Your task to perform on an android device: uninstall "Facebook" Image 0: 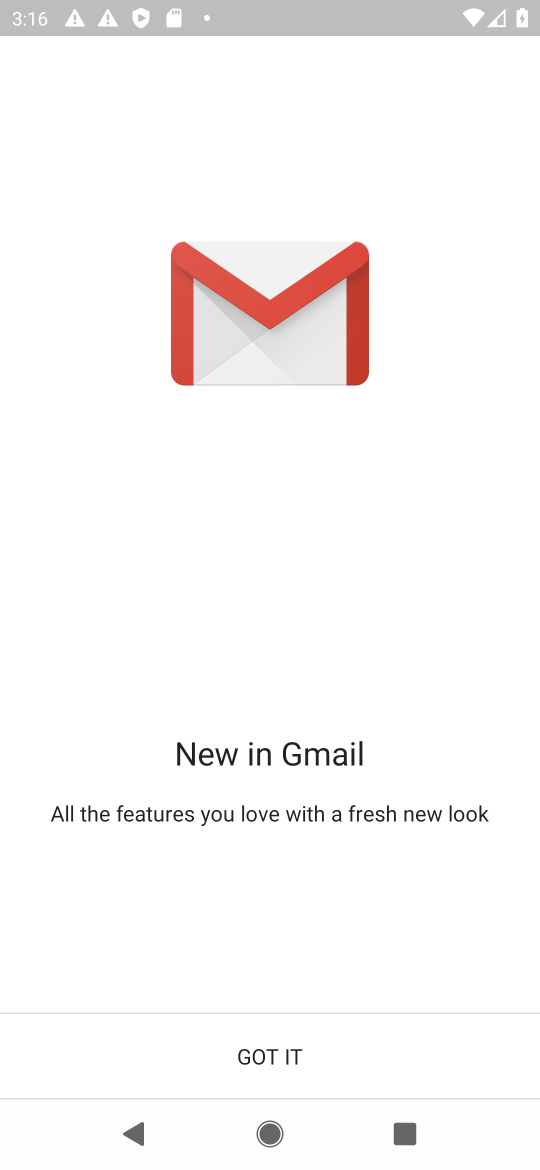
Step 0: press back button
Your task to perform on an android device: uninstall "Facebook" Image 1: 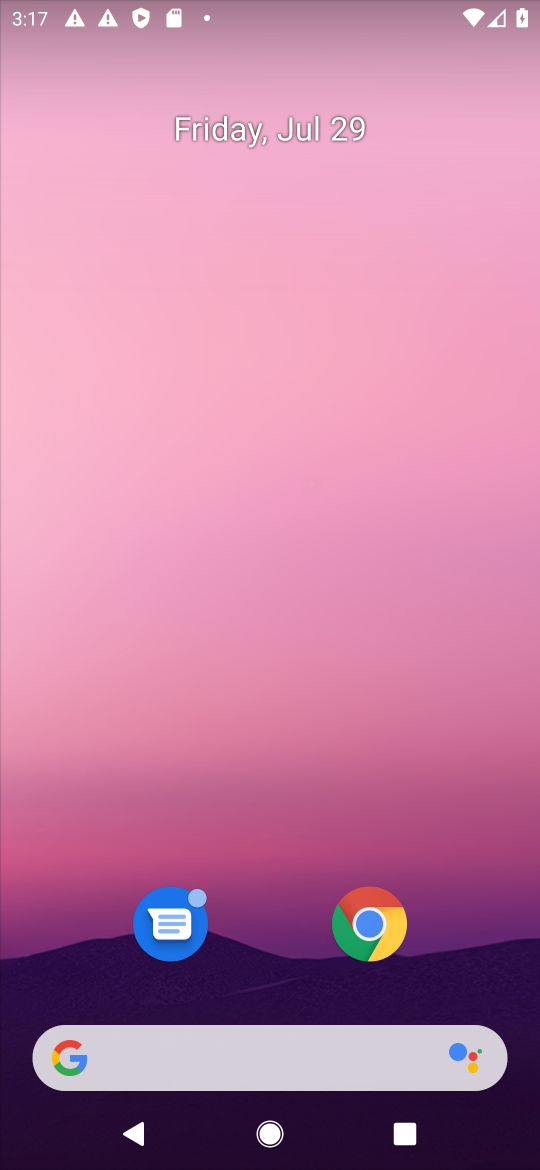
Step 1: click (254, 288)
Your task to perform on an android device: uninstall "Facebook" Image 2: 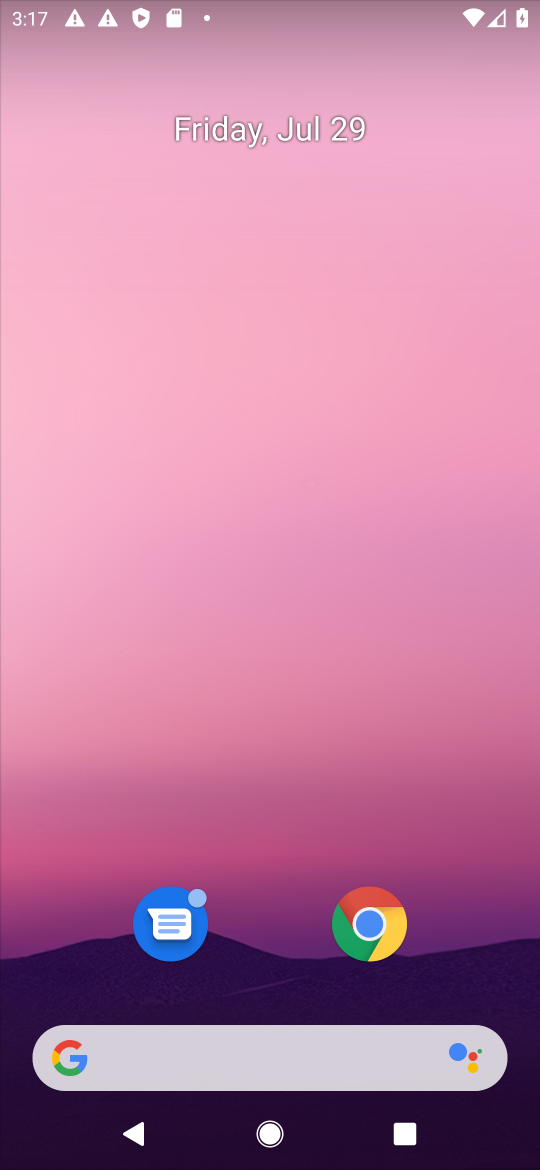
Step 2: click (246, 302)
Your task to perform on an android device: uninstall "Facebook" Image 3: 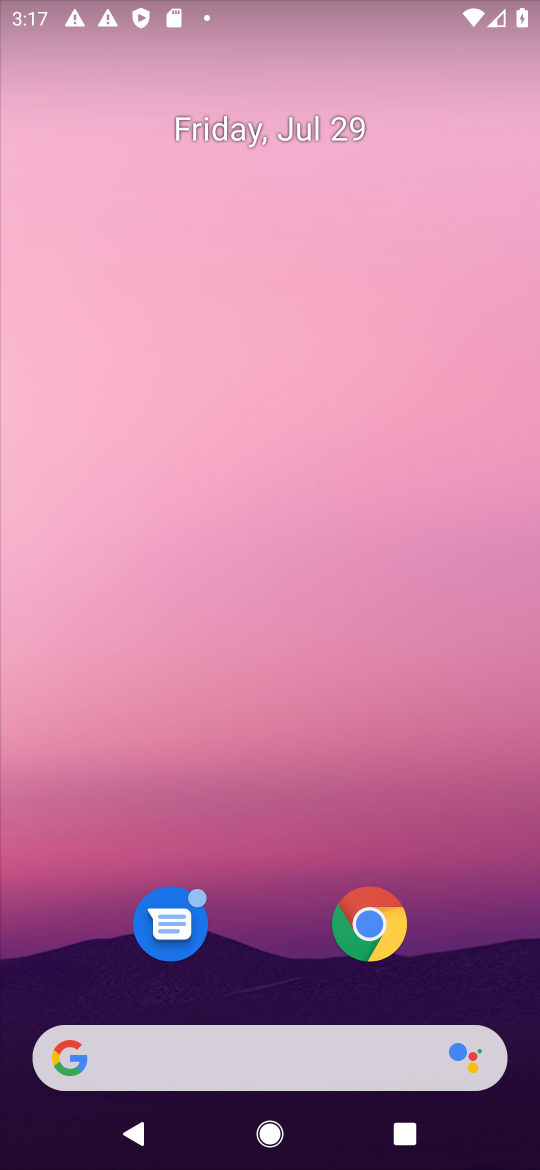
Step 3: drag from (306, 711) to (241, 207)
Your task to perform on an android device: uninstall "Facebook" Image 4: 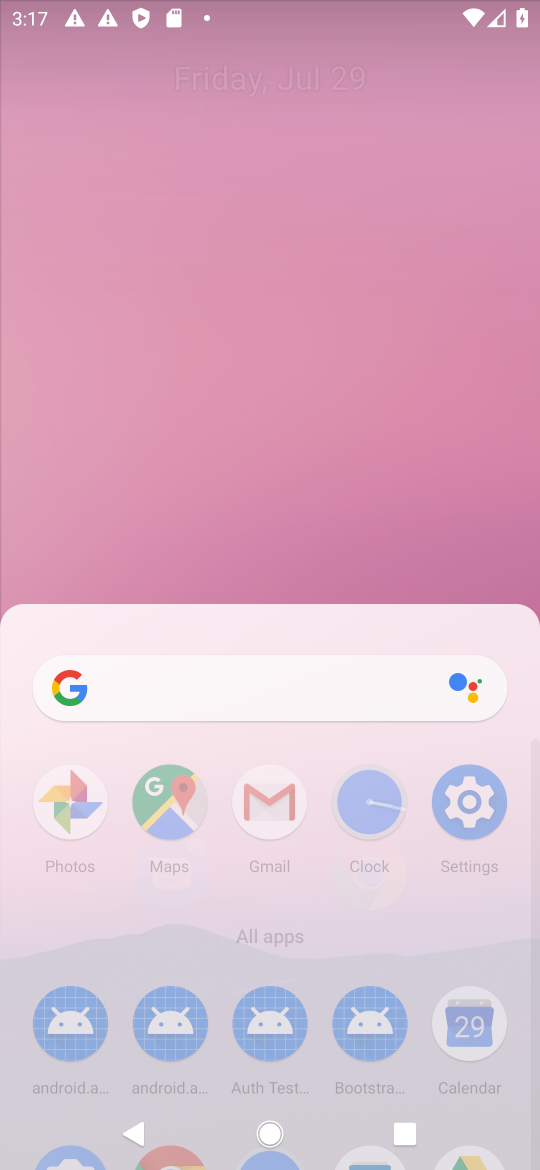
Step 4: drag from (276, 382) to (224, 352)
Your task to perform on an android device: uninstall "Facebook" Image 5: 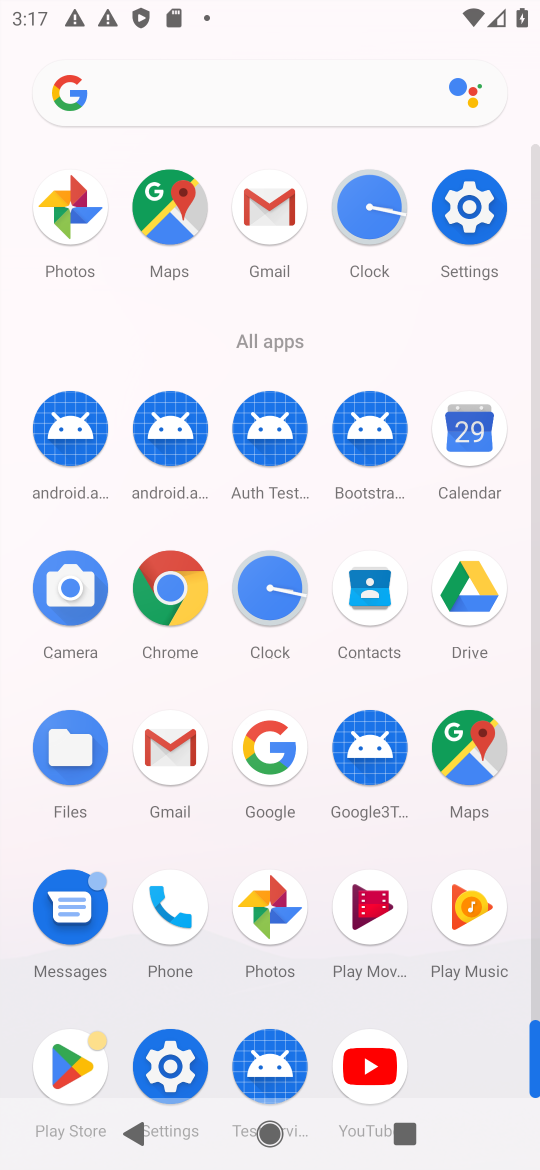
Step 5: click (57, 1069)
Your task to perform on an android device: uninstall "Facebook" Image 6: 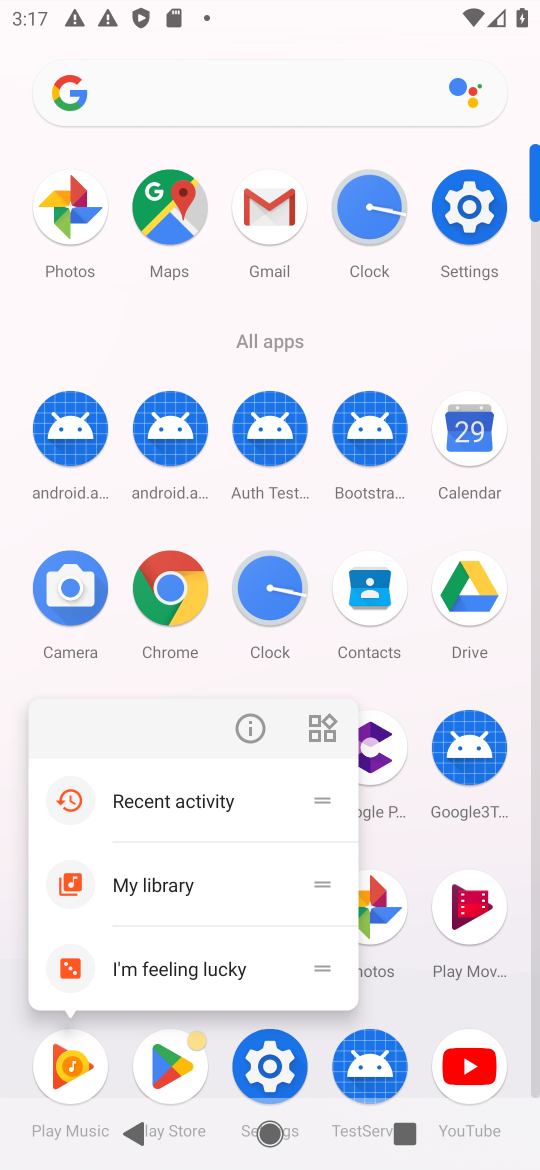
Step 6: click (167, 1068)
Your task to perform on an android device: uninstall "Facebook" Image 7: 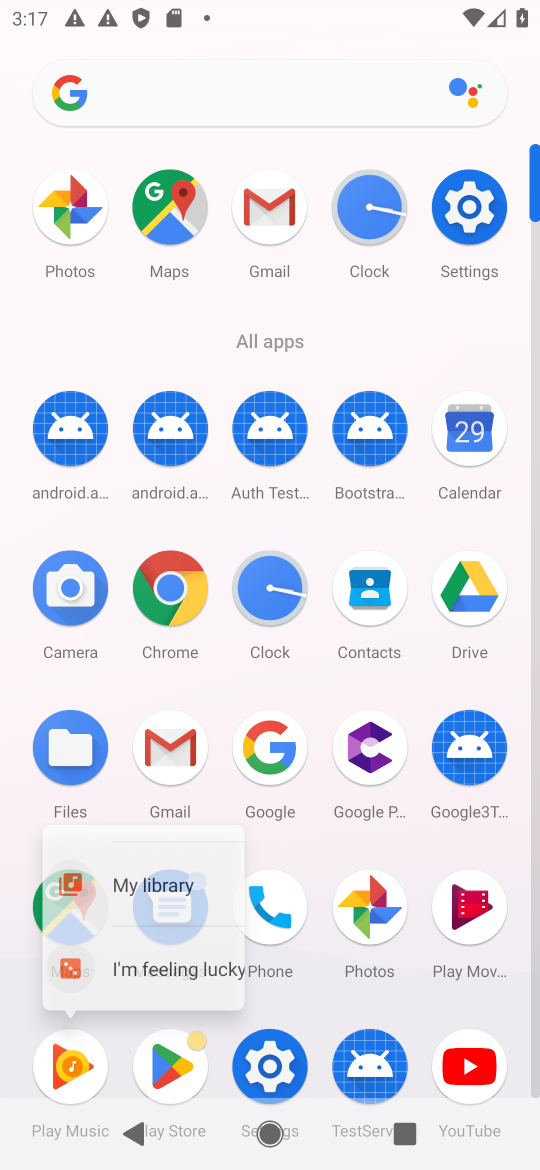
Step 7: click (171, 1068)
Your task to perform on an android device: uninstall "Facebook" Image 8: 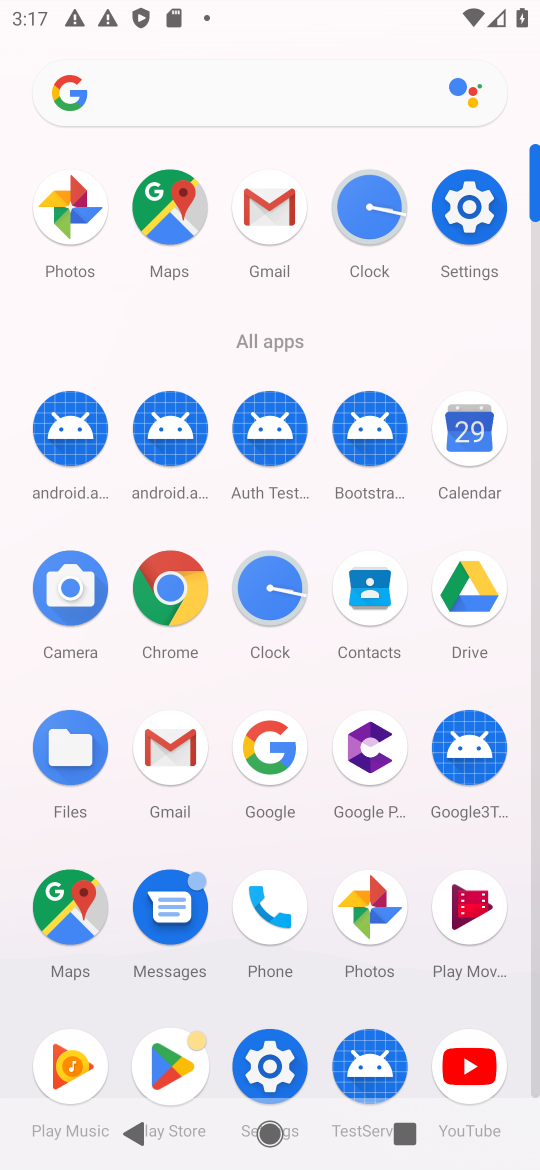
Step 8: click (176, 1068)
Your task to perform on an android device: uninstall "Facebook" Image 9: 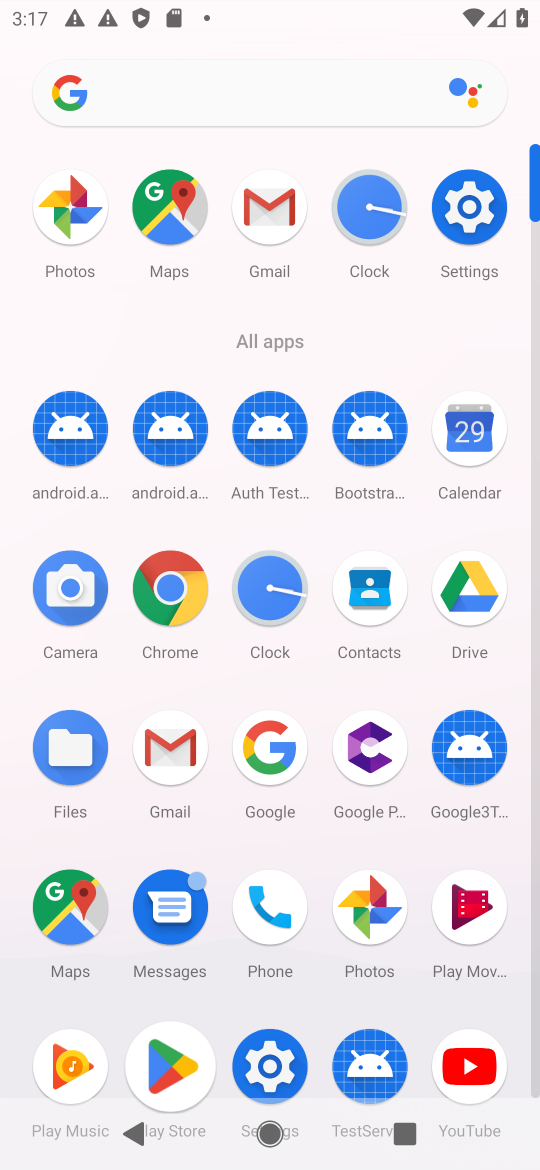
Step 9: click (178, 1071)
Your task to perform on an android device: uninstall "Facebook" Image 10: 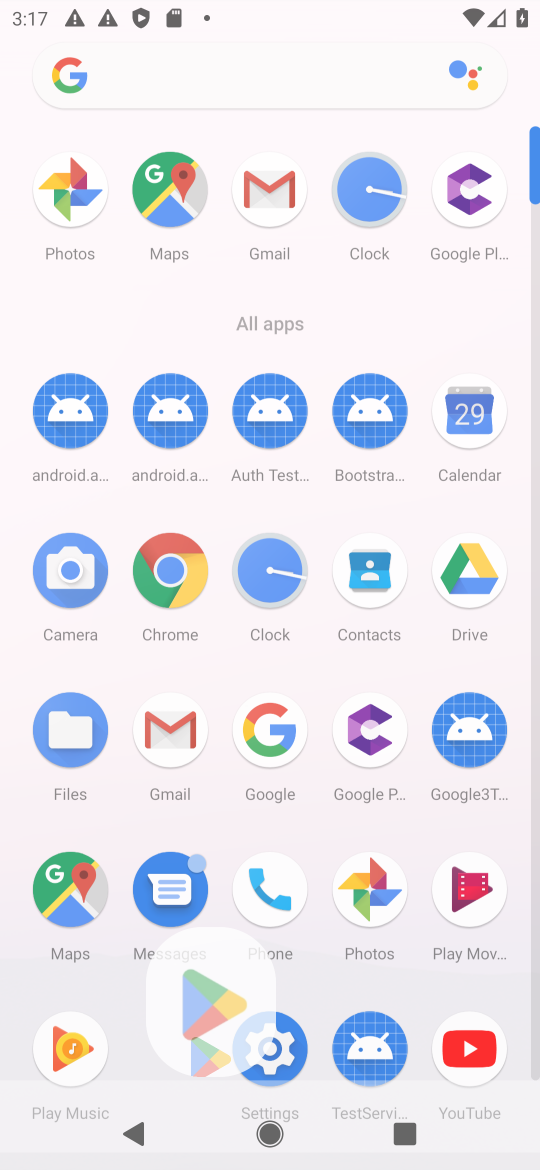
Step 10: click (161, 1041)
Your task to perform on an android device: uninstall "Facebook" Image 11: 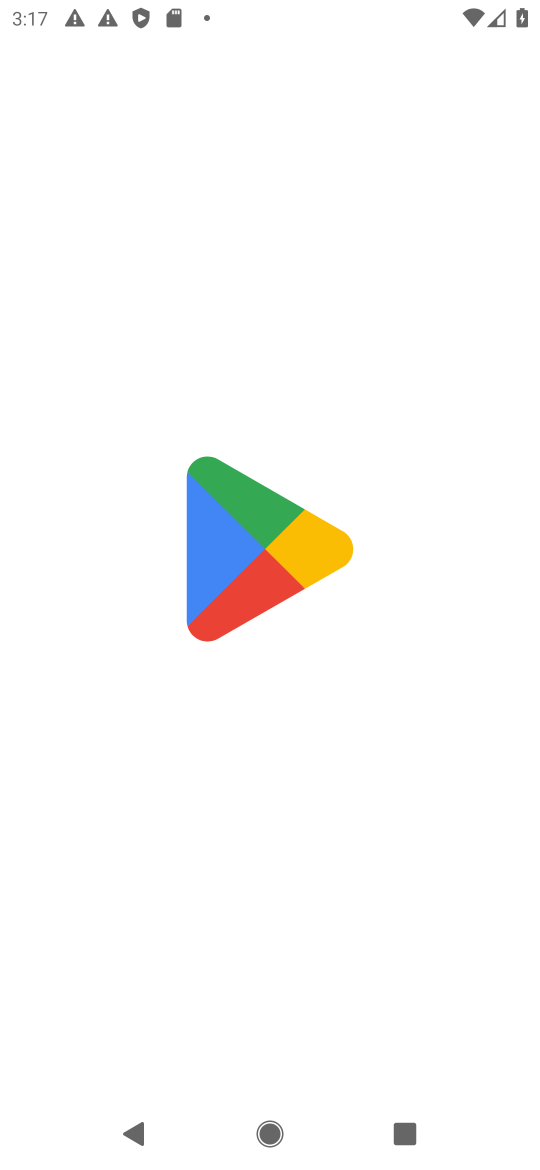
Step 11: click (161, 1040)
Your task to perform on an android device: uninstall "Facebook" Image 12: 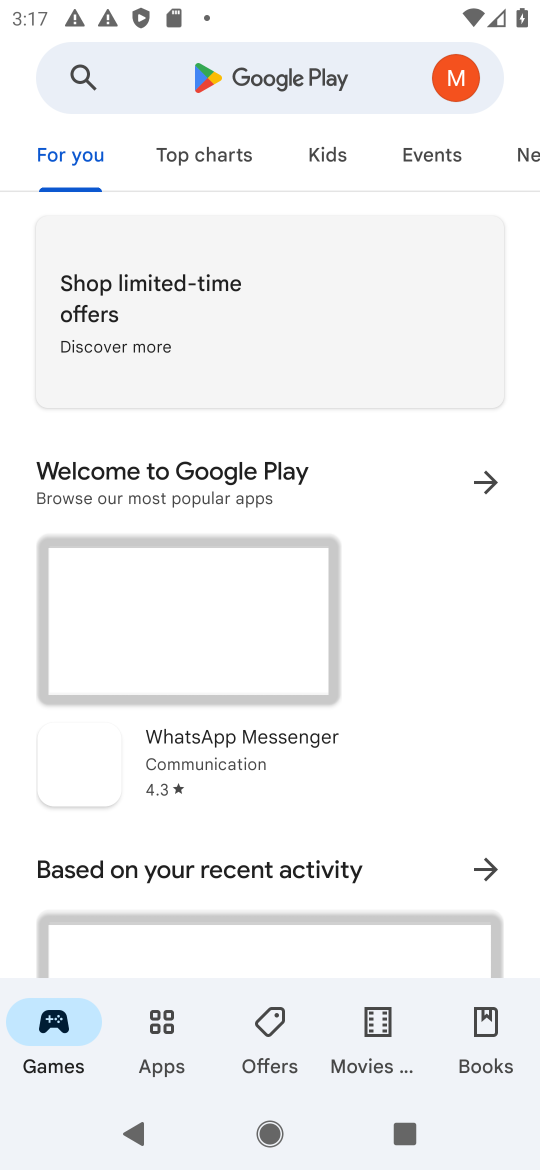
Step 12: click (179, 72)
Your task to perform on an android device: uninstall "Facebook" Image 13: 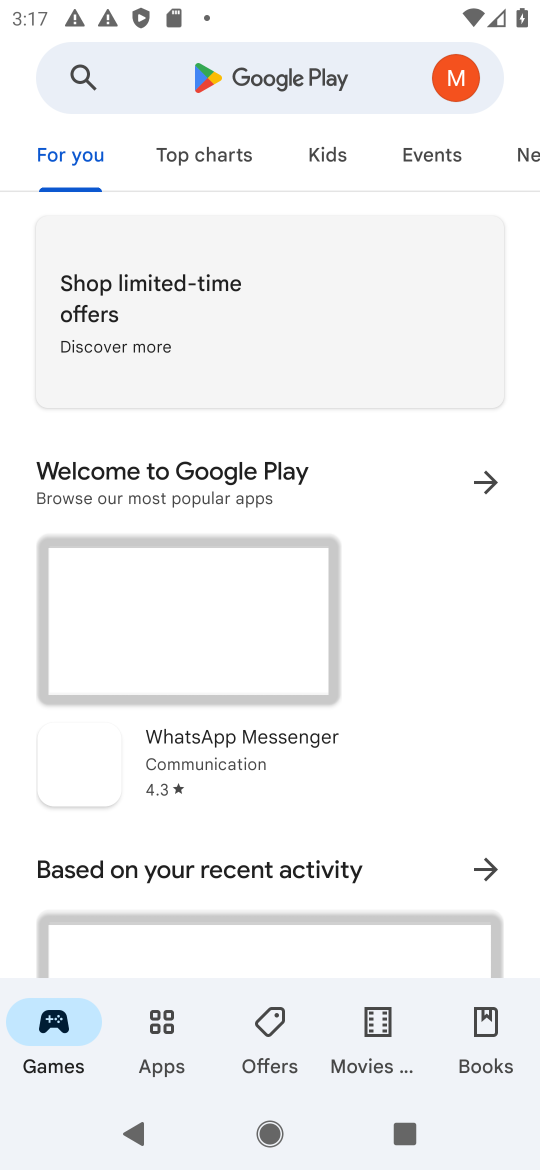
Step 13: click (179, 70)
Your task to perform on an android device: uninstall "Facebook" Image 14: 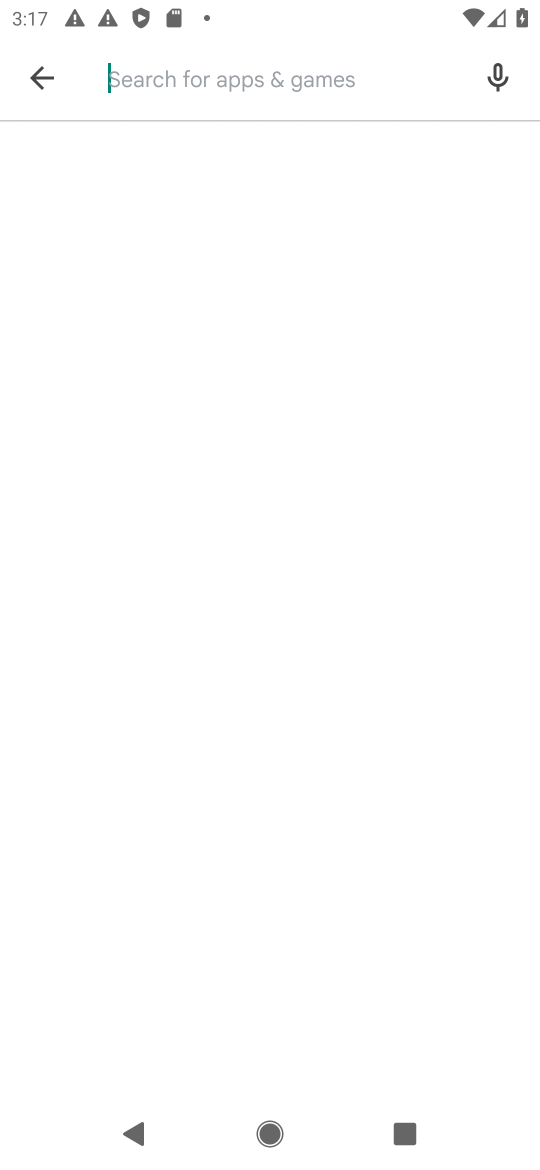
Step 14: click (179, 70)
Your task to perform on an android device: uninstall "Facebook" Image 15: 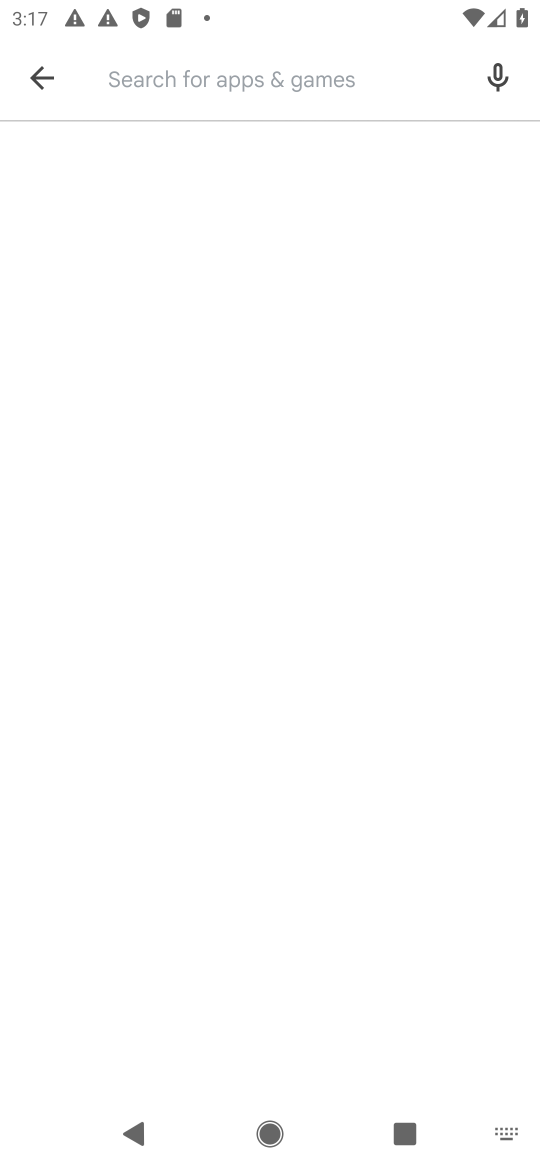
Step 15: click (179, 72)
Your task to perform on an android device: uninstall "Facebook" Image 16: 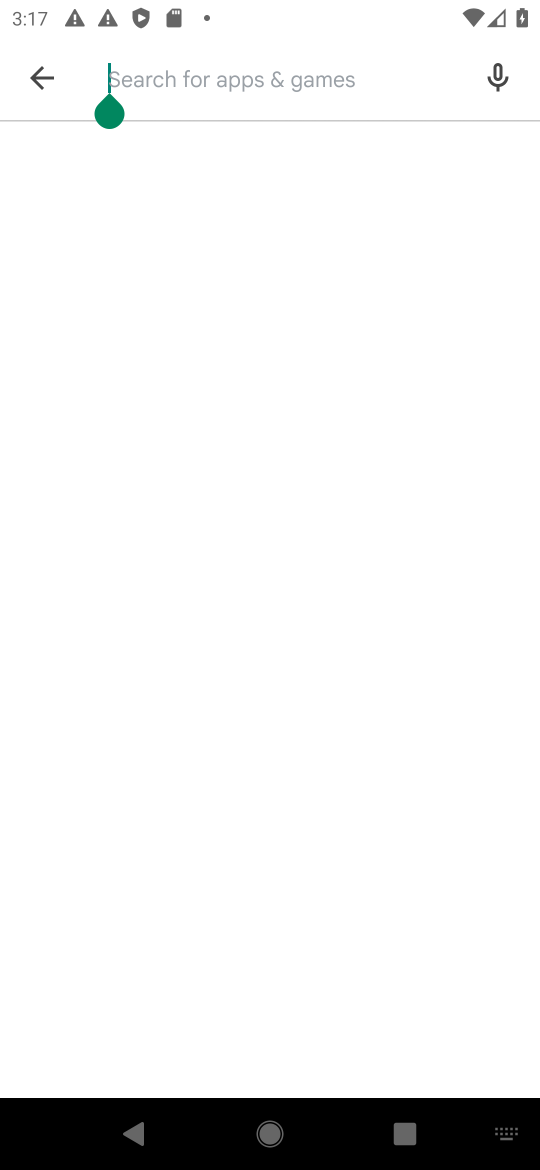
Step 16: click (200, 75)
Your task to perform on an android device: uninstall "Facebook" Image 17: 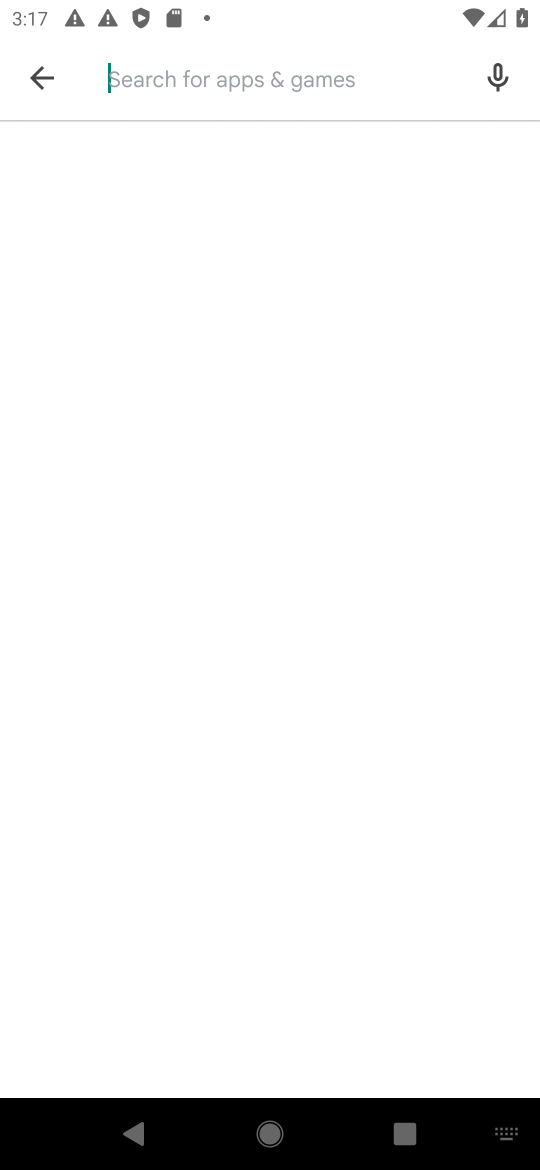
Step 17: type "facebook"
Your task to perform on an android device: uninstall "Facebook" Image 18: 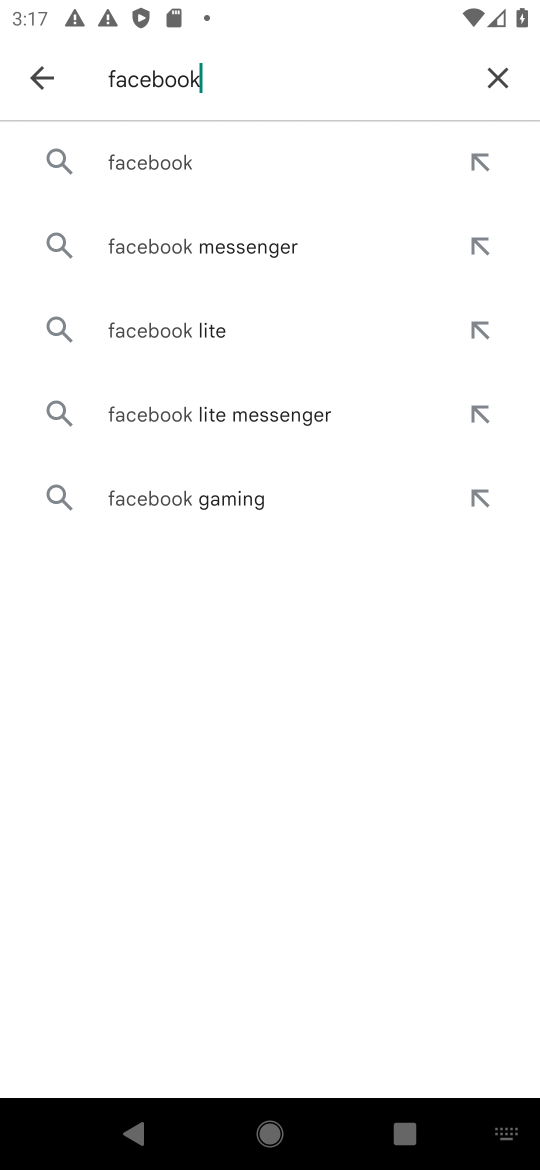
Step 18: click (127, 165)
Your task to perform on an android device: uninstall "Facebook" Image 19: 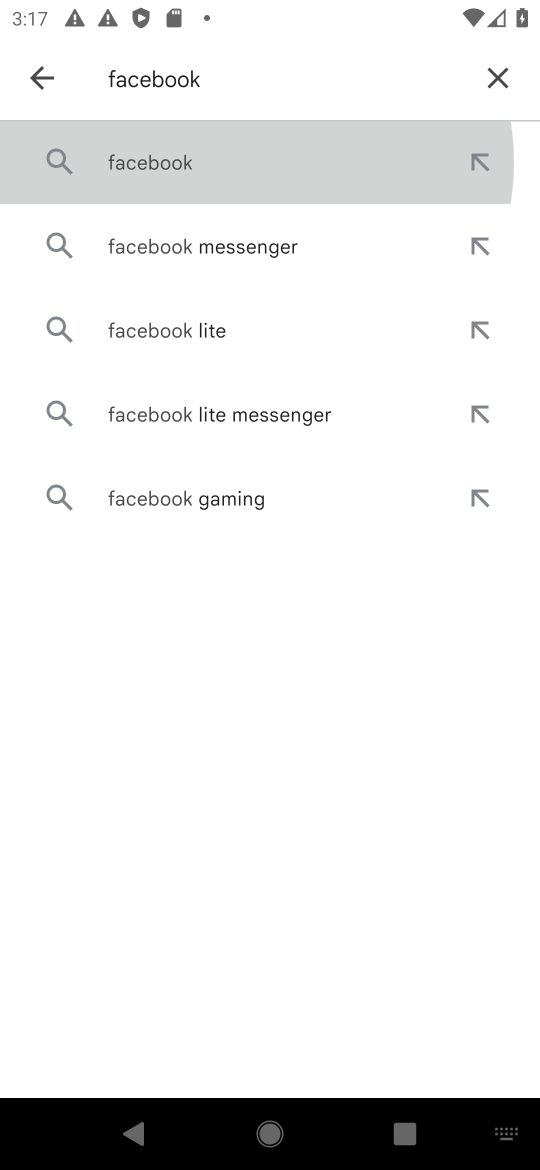
Step 19: click (130, 167)
Your task to perform on an android device: uninstall "Facebook" Image 20: 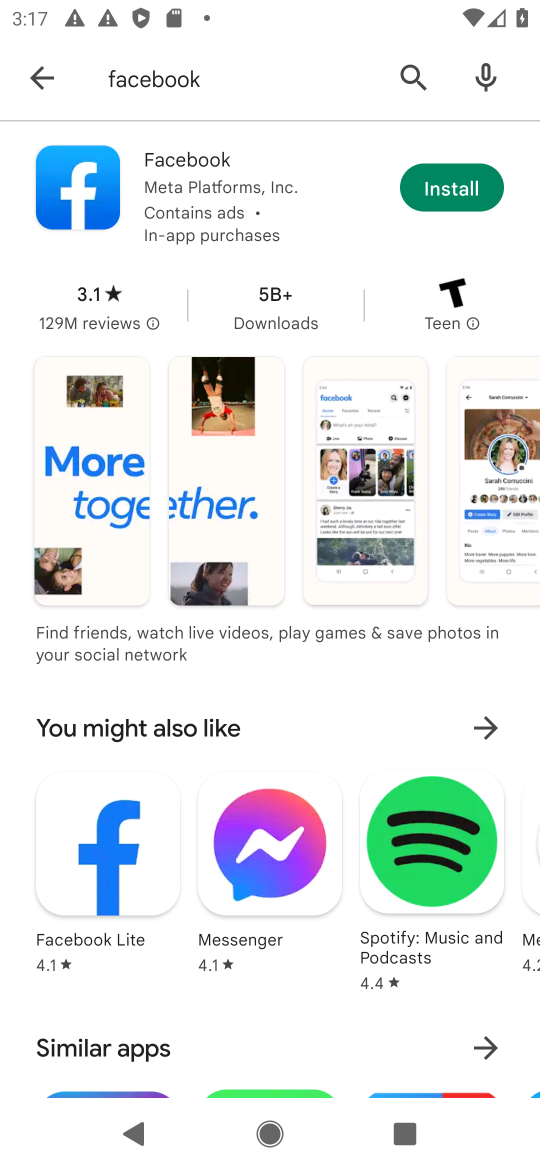
Step 20: task complete